Your task to perform on an android device: turn off smart reply in the gmail app Image 0: 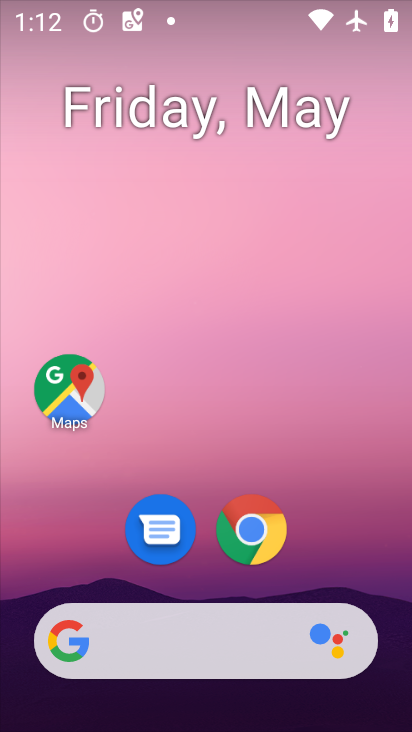
Step 0: drag from (213, 616) to (146, 172)
Your task to perform on an android device: turn off smart reply in the gmail app Image 1: 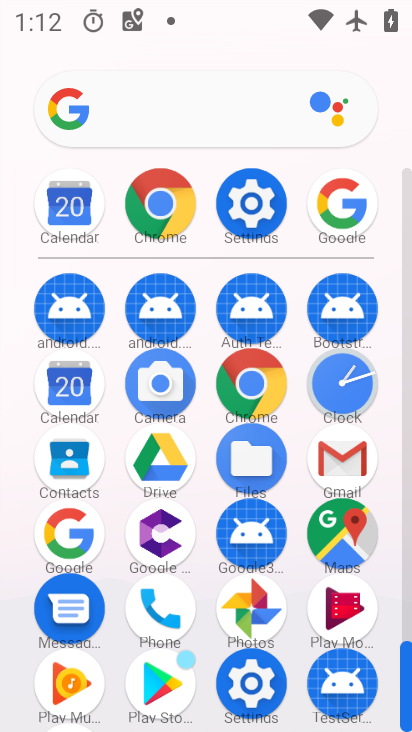
Step 1: click (342, 457)
Your task to perform on an android device: turn off smart reply in the gmail app Image 2: 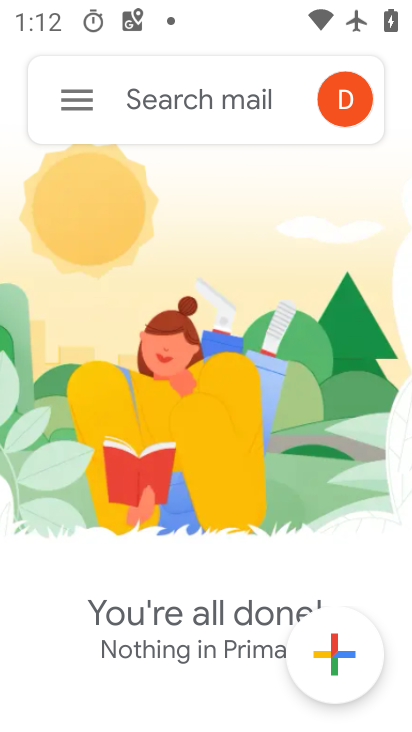
Step 2: click (85, 102)
Your task to perform on an android device: turn off smart reply in the gmail app Image 3: 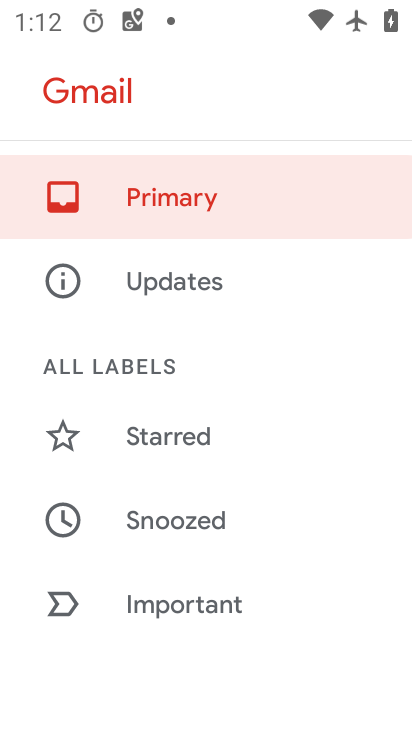
Step 3: drag from (137, 474) to (113, 214)
Your task to perform on an android device: turn off smart reply in the gmail app Image 4: 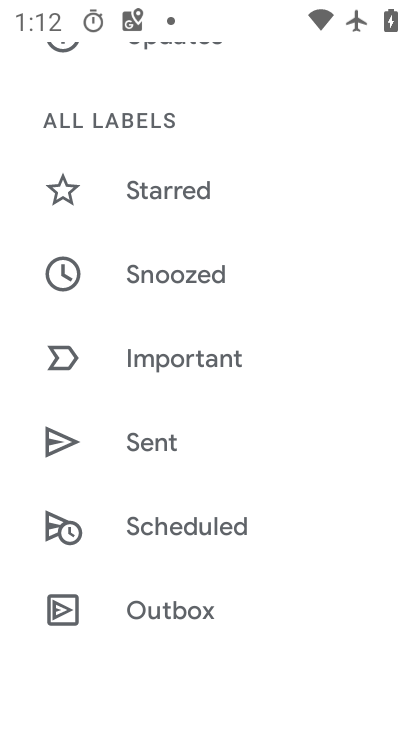
Step 4: drag from (167, 582) to (142, 195)
Your task to perform on an android device: turn off smart reply in the gmail app Image 5: 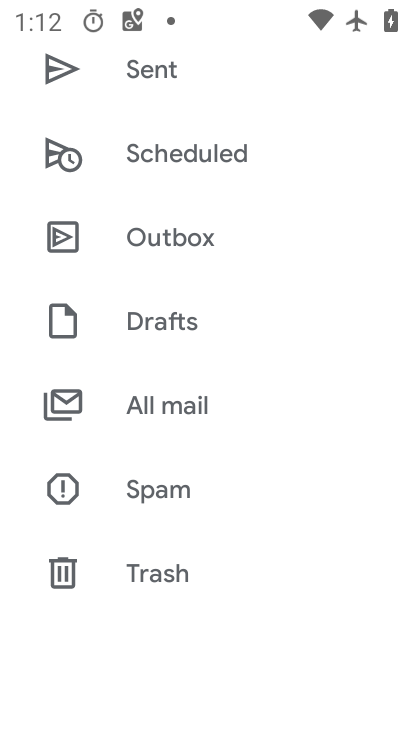
Step 5: drag from (185, 530) to (179, 167)
Your task to perform on an android device: turn off smart reply in the gmail app Image 6: 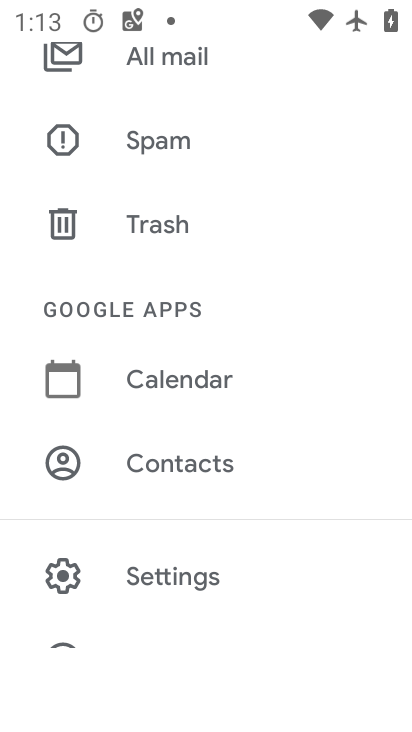
Step 6: click (188, 584)
Your task to perform on an android device: turn off smart reply in the gmail app Image 7: 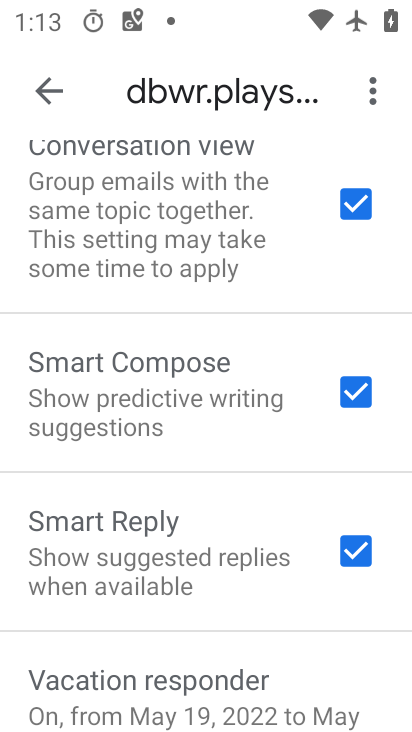
Step 7: click (350, 548)
Your task to perform on an android device: turn off smart reply in the gmail app Image 8: 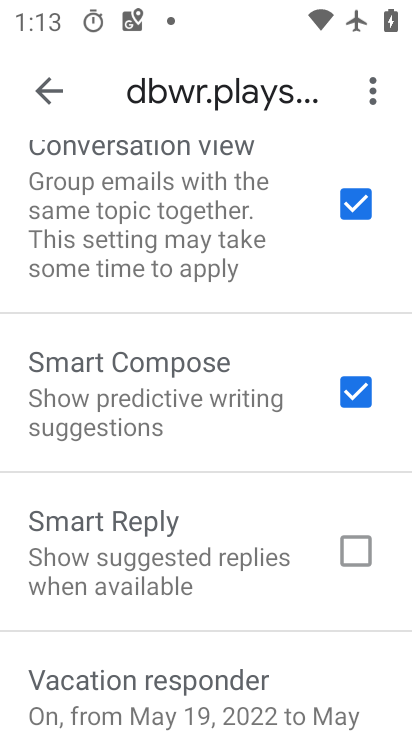
Step 8: task complete